Your task to perform on an android device: change notification settings in the gmail app Image 0: 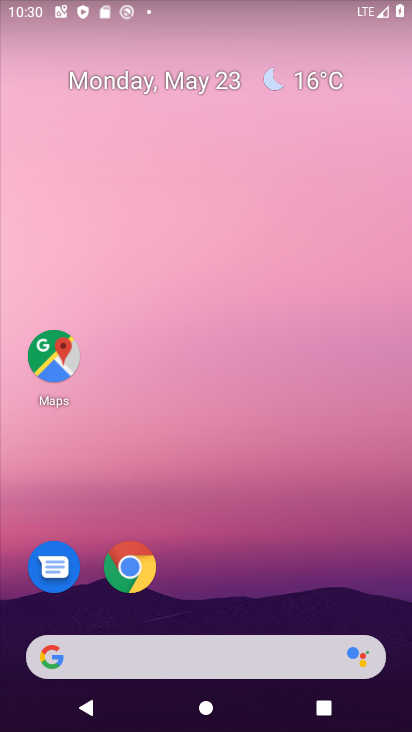
Step 0: drag from (236, 330) to (293, 90)
Your task to perform on an android device: change notification settings in the gmail app Image 1: 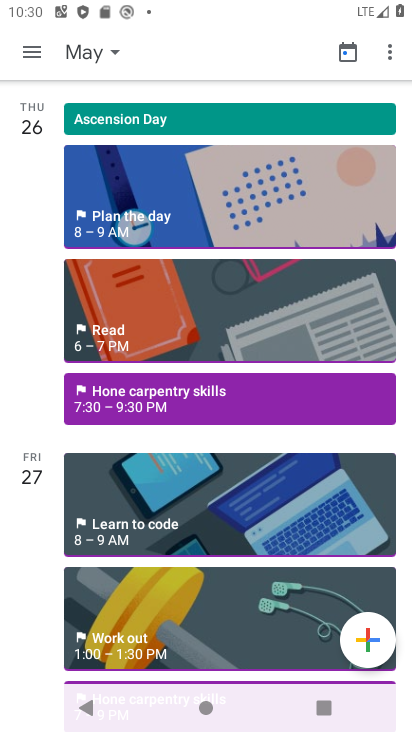
Step 1: press home button
Your task to perform on an android device: change notification settings in the gmail app Image 2: 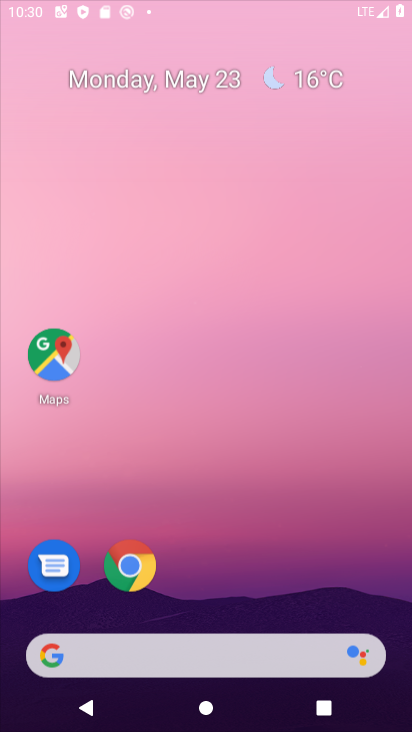
Step 2: drag from (234, 643) to (280, 16)
Your task to perform on an android device: change notification settings in the gmail app Image 3: 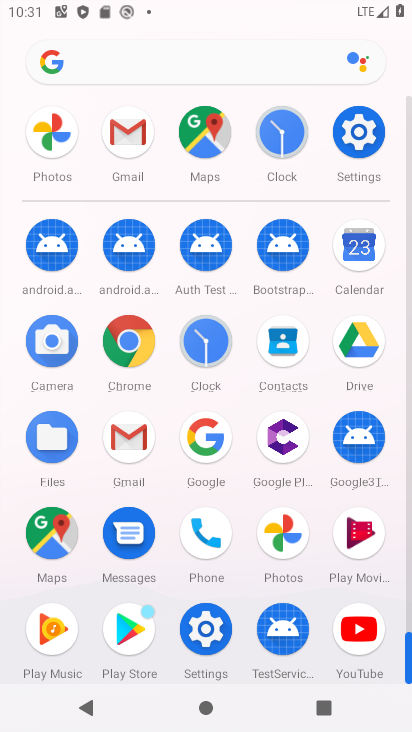
Step 3: click (131, 442)
Your task to perform on an android device: change notification settings in the gmail app Image 4: 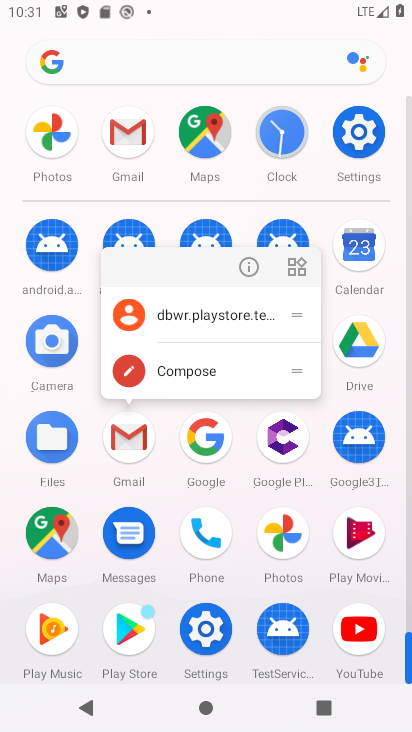
Step 4: click (243, 265)
Your task to perform on an android device: change notification settings in the gmail app Image 5: 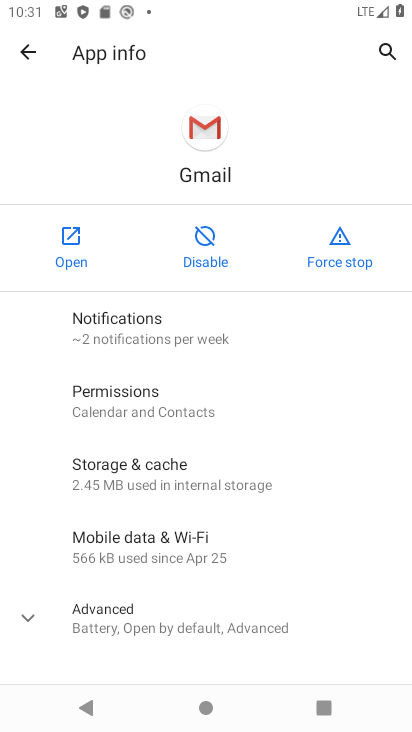
Step 5: click (78, 273)
Your task to perform on an android device: change notification settings in the gmail app Image 6: 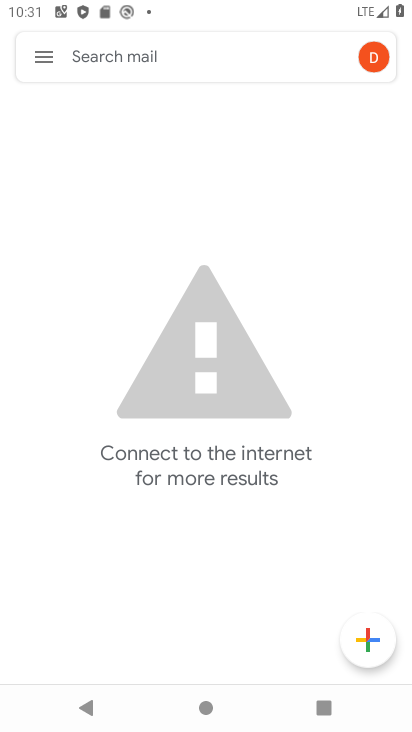
Step 6: click (49, 53)
Your task to perform on an android device: change notification settings in the gmail app Image 7: 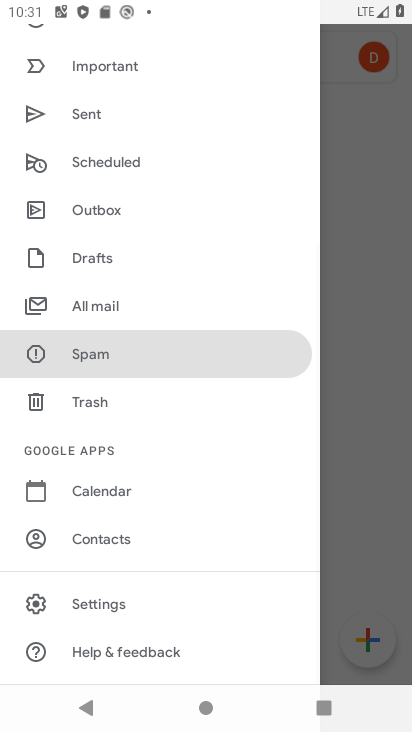
Step 7: drag from (165, 589) to (242, 227)
Your task to perform on an android device: change notification settings in the gmail app Image 8: 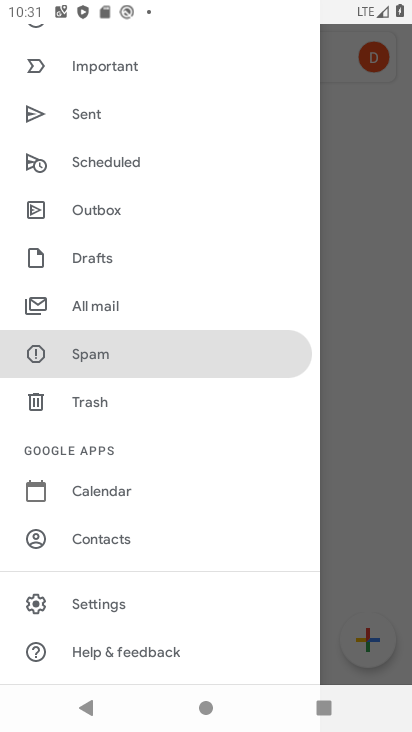
Step 8: drag from (244, 176) to (224, 725)
Your task to perform on an android device: change notification settings in the gmail app Image 9: 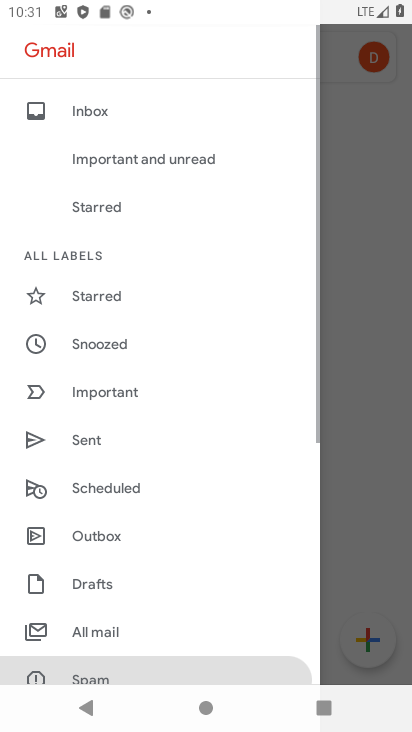
Step 9: drag from (158, 563) to (246, 172)
Your task to perform on an android device: change notification settings in the gmail app Image 10: 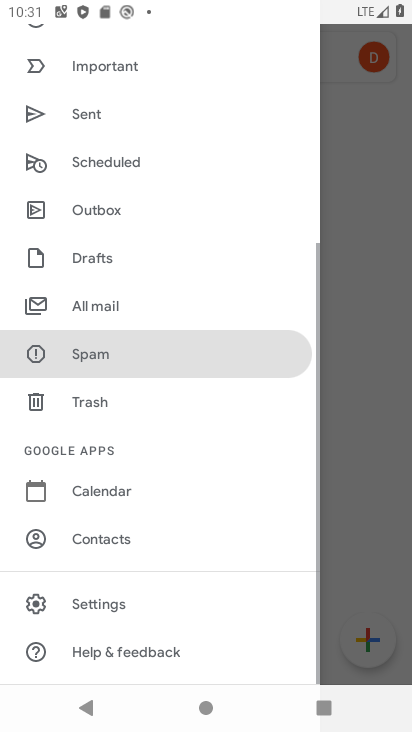
Step 10: drag from (131, 638) to (205, 313)
Your task to perform on an android device: change notification settings in the gmail app Image 11: 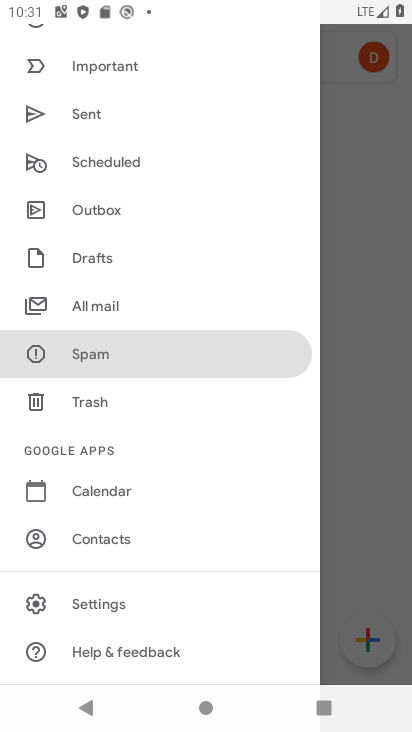
Step 11: click (123, 605)
Your task to perform on an android device: change notification settings in the gmail app Image 12: 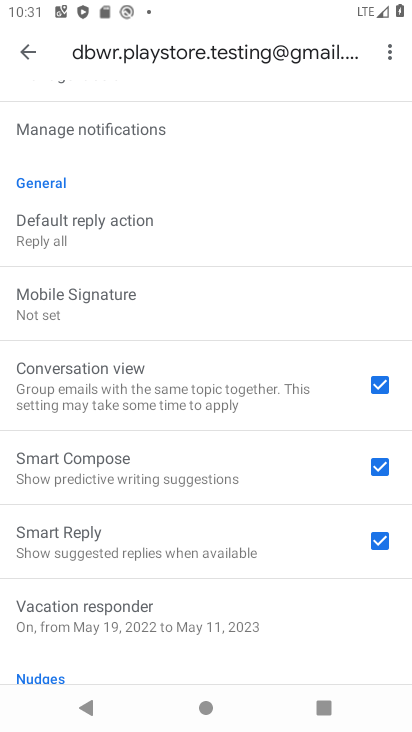
Step 12: click (145, 135)
Your task to perform on an android device: change notification settings in the gmail app Image 13: 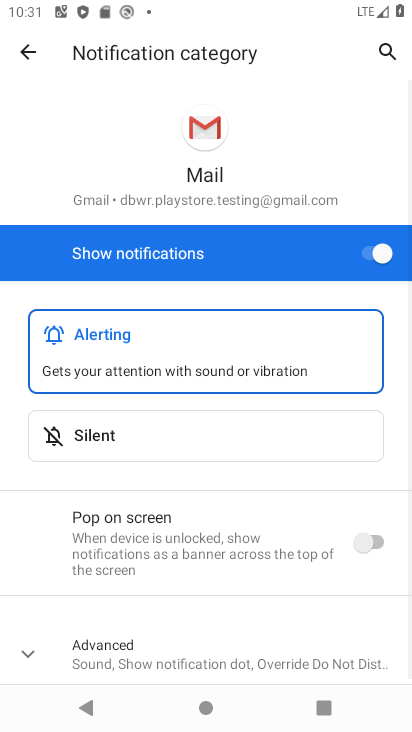
Step 13: task complete